Your task to perform on an android device: turn smart compose on in the gmail app Image 0: 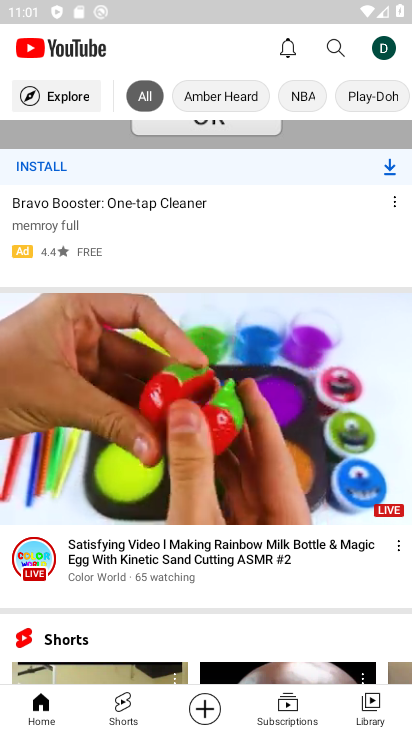
Step 0: press home button
Your task to perform on an android device: turn smart compose on in the gmail app Image 1: 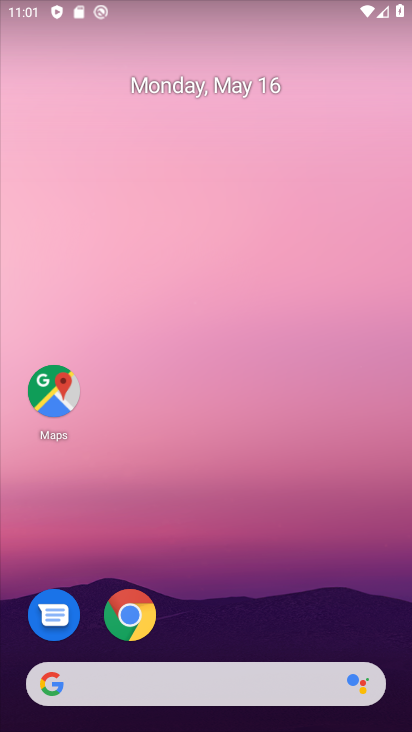
Step 1: drag from (326, 414) to (329, 0)
Your task to perform on an android device: turn smart compose on in the gmail app Image 2: 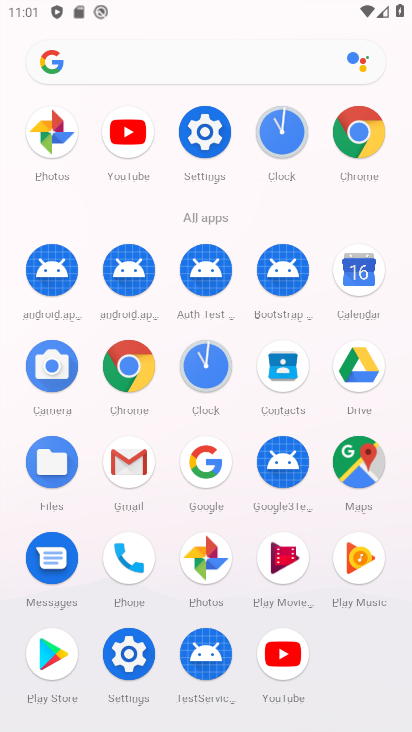
Step 2: click (115, 460)
Your task to perform on an android device: turn smart compose on in the gmail app Image 3: 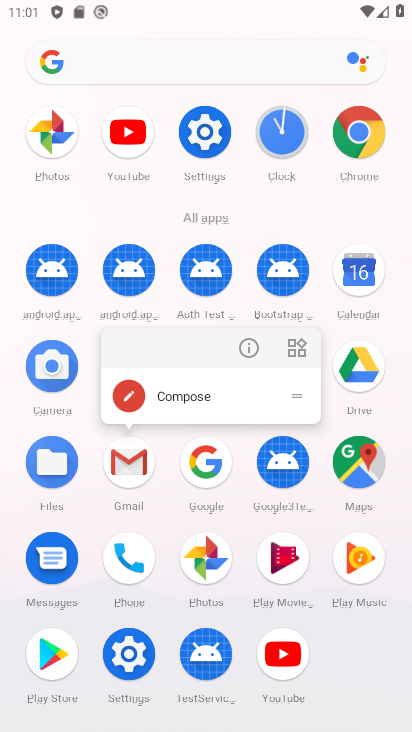
Step 3: click (122, 469)
Your task to perform on an android device: turn smart compose on in the gmail app Image 4: 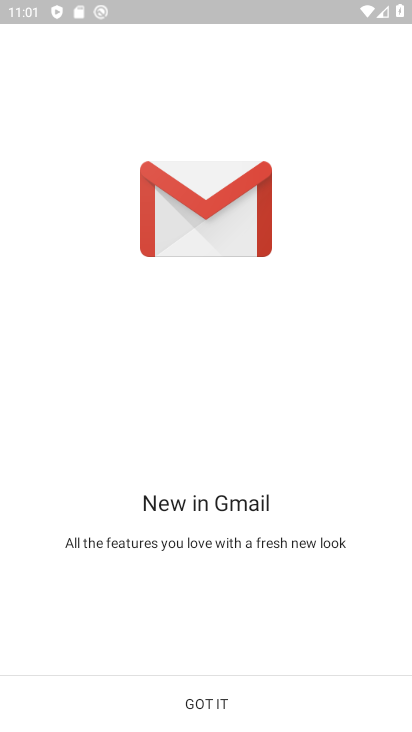
Step 4: click (184, 698)
Your task to perform on an android device: turn smart compose on in the gmail app Image 5: 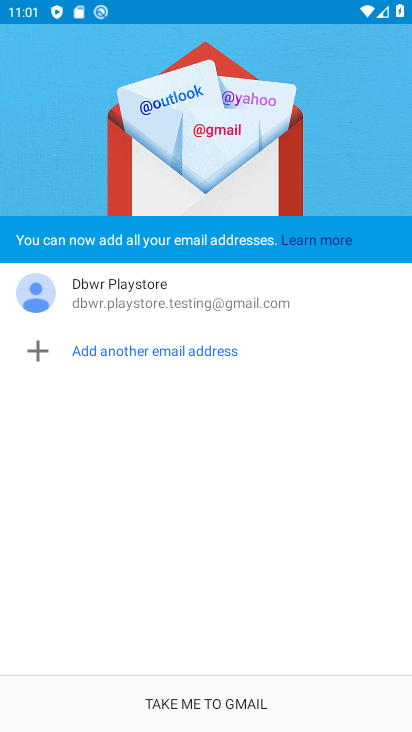
Step 5: click (184, 698)
Your task to perform on an android device: turn smart compose on in the gmail app Image 6: 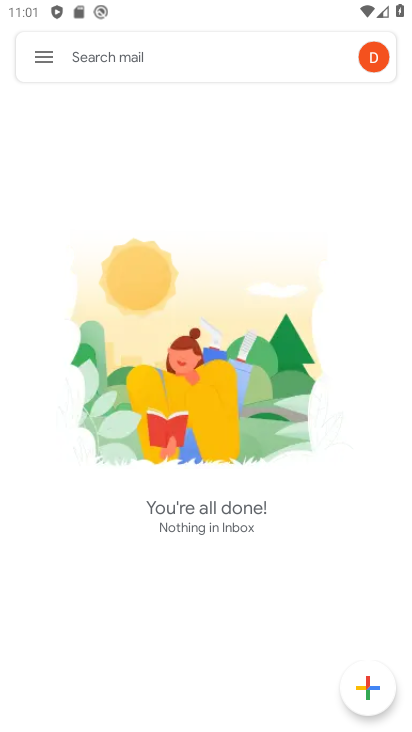
Step 6: click (39, 64)
Your task to perform on an android device: turn smart compose on in the gmail app Image 7: 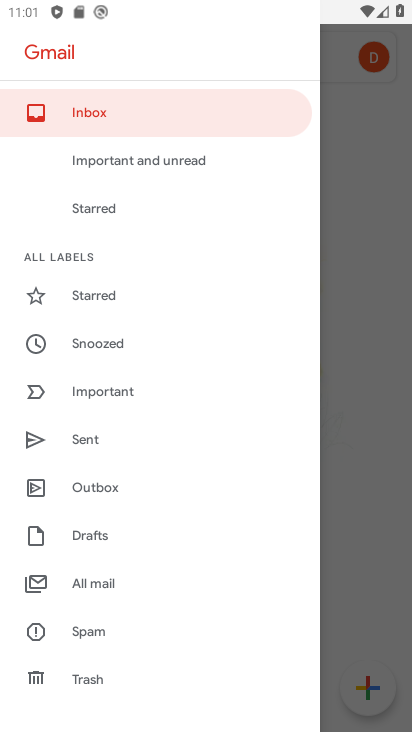
Step 7: drag from (143, 567) to (156, 397)
Your task to perform on an android device: turn smart compose on in the gmail app Image 8: 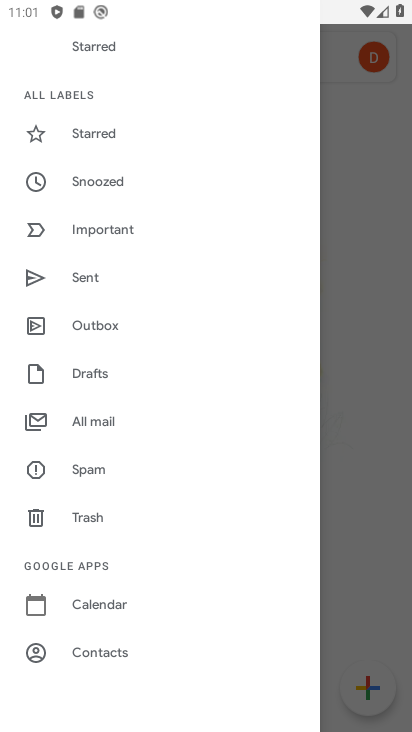
Step 8: drag from (144, 586) to (173, 291)
Your task to perform on an android device: turn smart compose on in the gmail app Image 9: 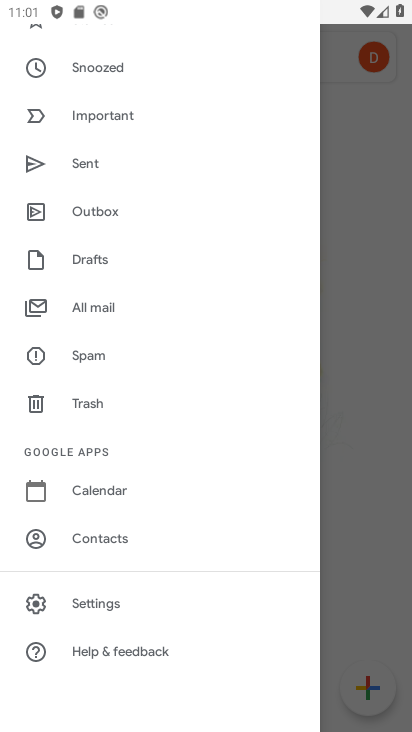
Step 9: click (75, 595)
Your task to perform on an android device: turn smart compose on in the gmail app Image 10: 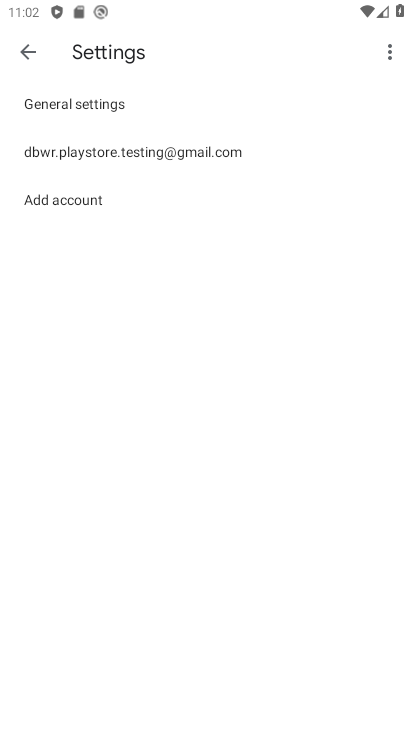
Step 10: click (192, 149)
Your task to perform on an android device: turn smart compose on in the gmail app Image 11: 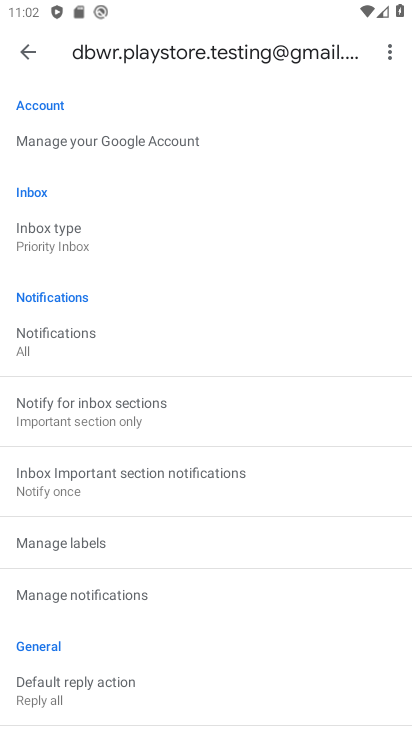
Step 11: task complete